Your task to perform on an android device: Go to Google maps Image 0: 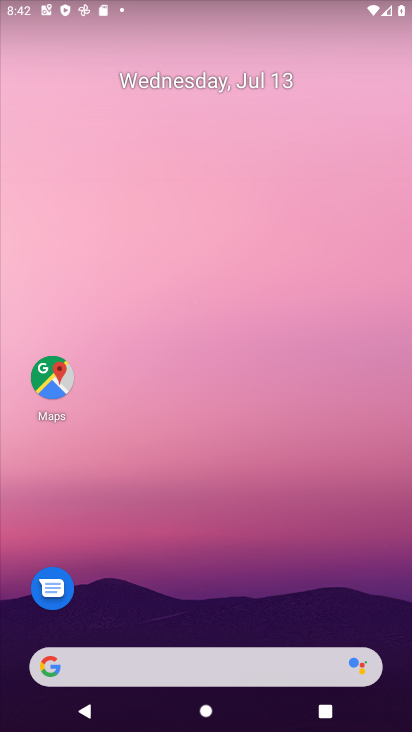
Step 0: click (42, 375)
Your task to perform on an android device: Go to Google maps Image 1: 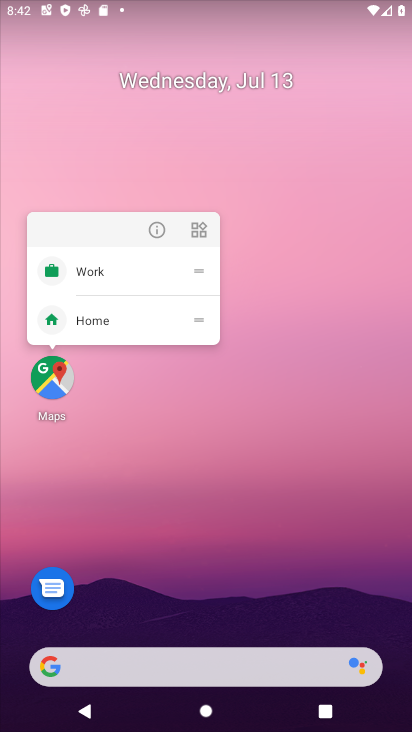
Step 1: click (58, 384)
Your task to perform on an android device: Go to Google maps Image 2: 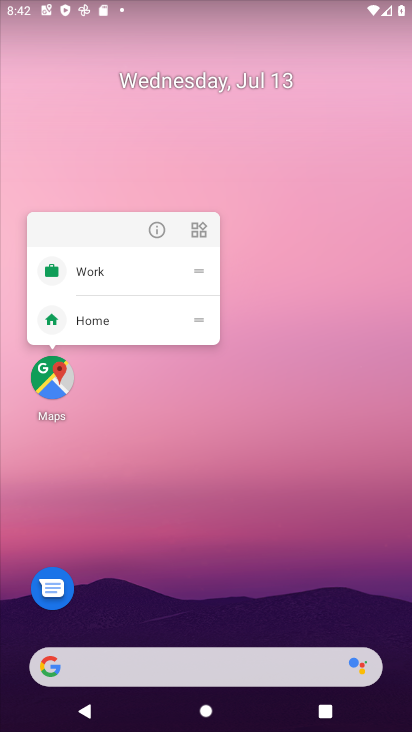
Step 2: click (34, 395)
Your task to perform on an android device: Go to Google maps Image 3: 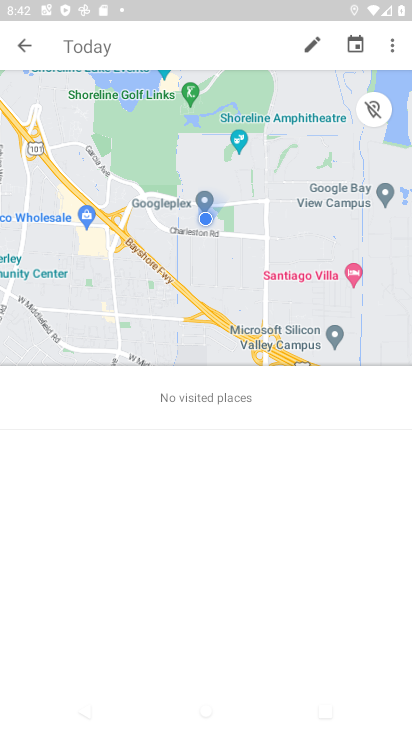
Step 3: click (24, 41)
Your task to perform on an android device: Go to Google maps Image 4: 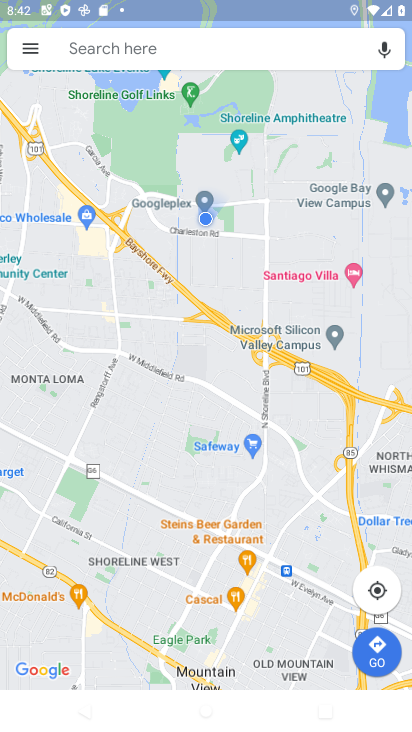
Step 4: task complete